Your task to perform on an android device: find snoozed emails in the gmail app Image 0: 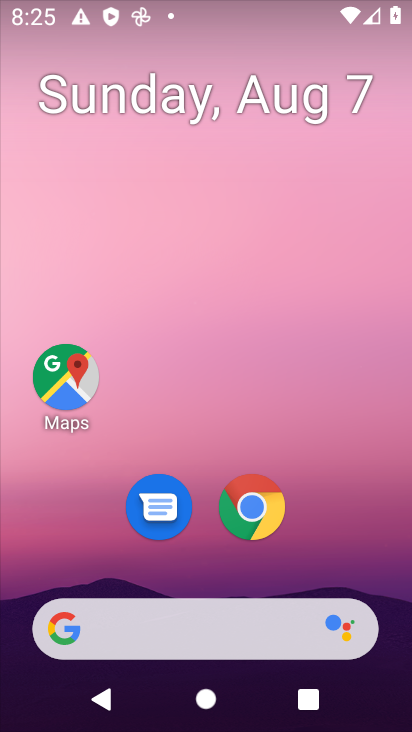
Step 0: press home button
Your task to perform on an android device: find snoozed emails in the gmail app Image 1: 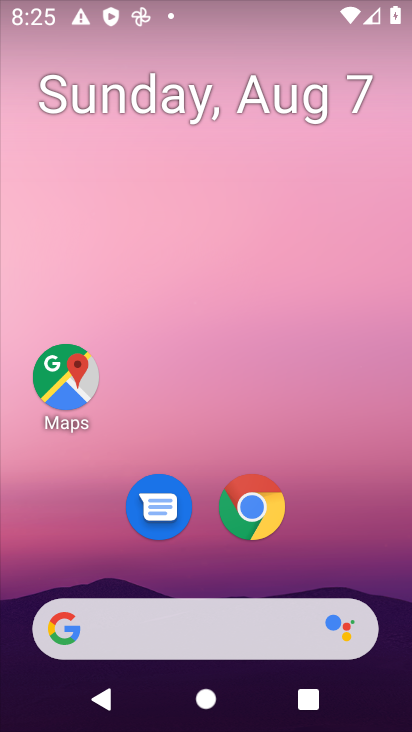
Step 1: drag from (213, 633) to (313, 83)
Your task to perform on an android device: find snoozed emails in the gmail app Image 2: 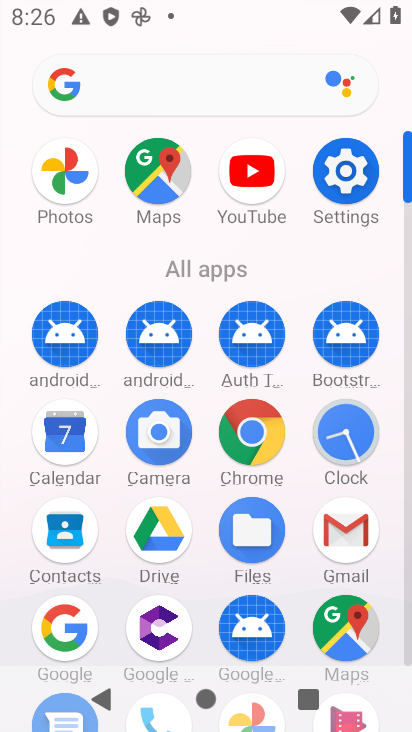
Step 2: click (345, 531)
Your task to perform on an android device: find snoozed emails in the gmail app Image 3: 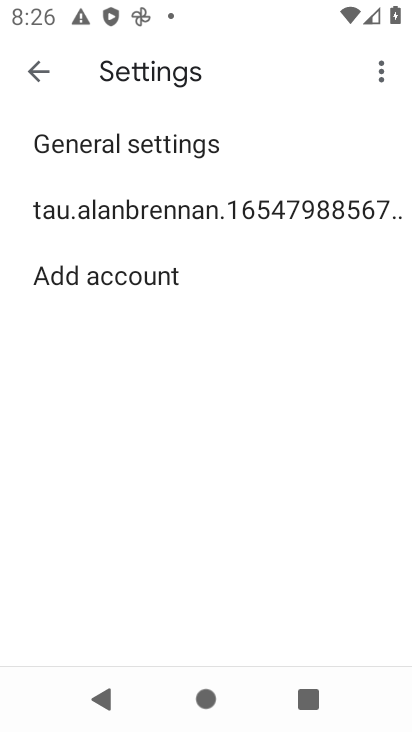
Step 3: click (41, 73)
Your task to perform on an android device: find snoozed emails in the gmail app Image 4: 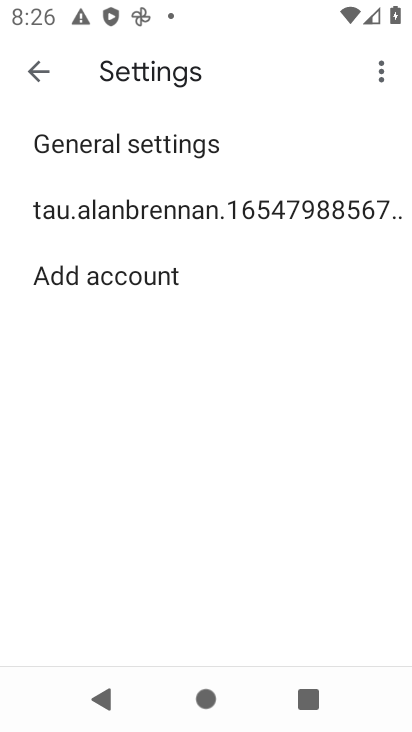
Step 4: click (39, 69)
Your task to perform on an android device: find snoozed emails in the gmail app Image 5: 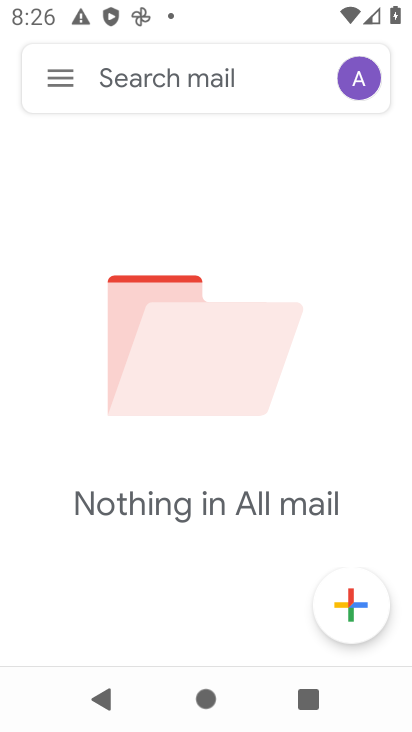
Step 5: click (56, 74)
Your task to perform on an android device: find snoozed emails in the gmail app Image 6: 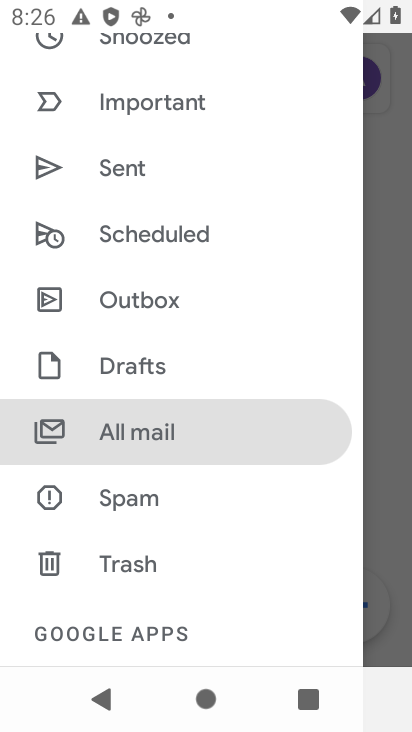
Step 6: drag from (267, 134) to (344, 483)
Your task to perform on an android device: find snoozed emails in the gmail app Image 7: 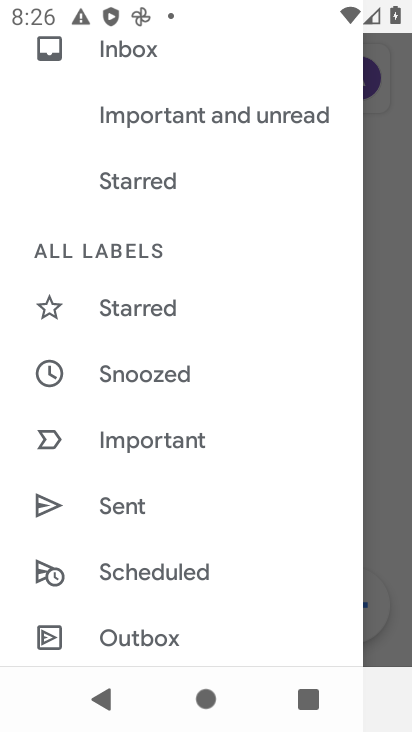
Step 7: click (179, 368)
Your task to perform on an android device: find snoozed emails in the gmail app Image 8: 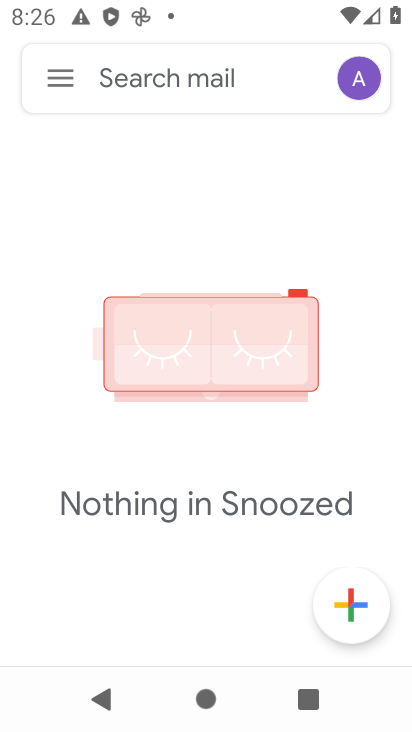
Step 8: task complete